Your task to perform on an android device: Open Maps and search for coffee Image 0: 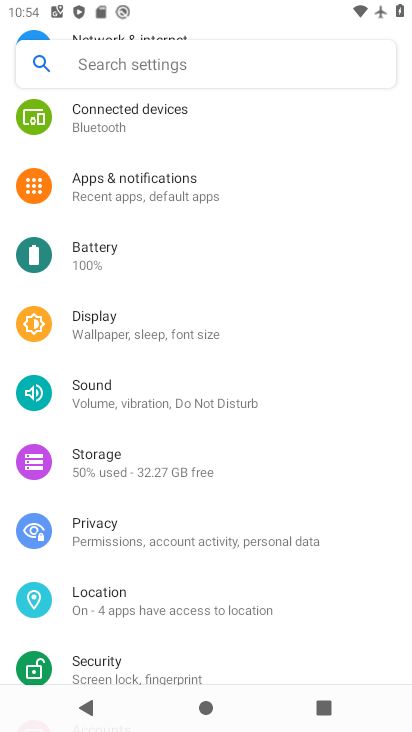
Step 0: press home button
Your task to perform on an android device: Open Maps and search for coffee Image 1: 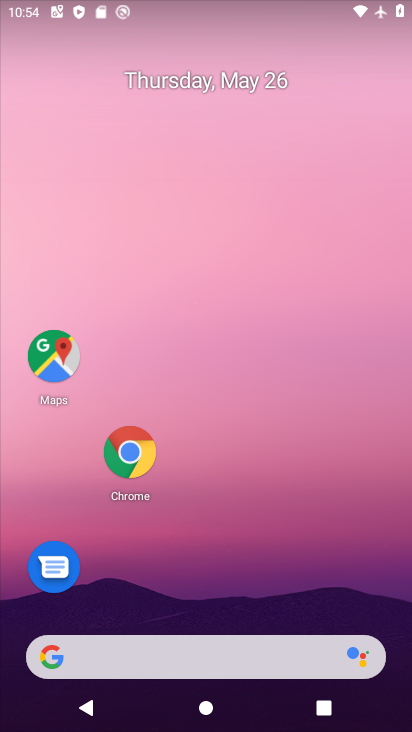
Step 1: click (55, 365)
Your task to perform on an android device: Open Maps and search for coffee Image 2: 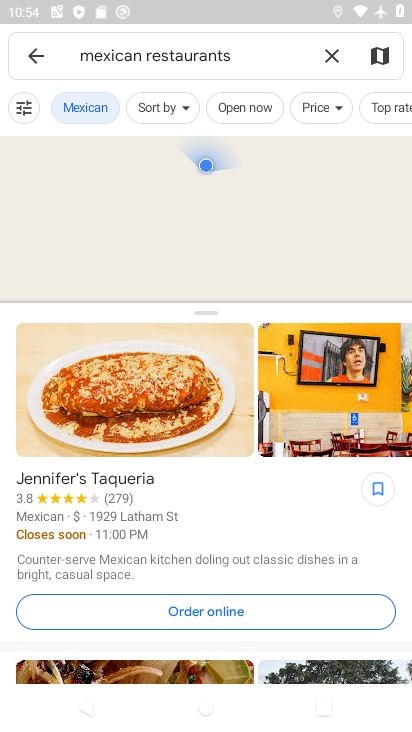
Step 2: click (332, 50)
Your task to perform on an android device: Open Maps and search for coffee Image 3: 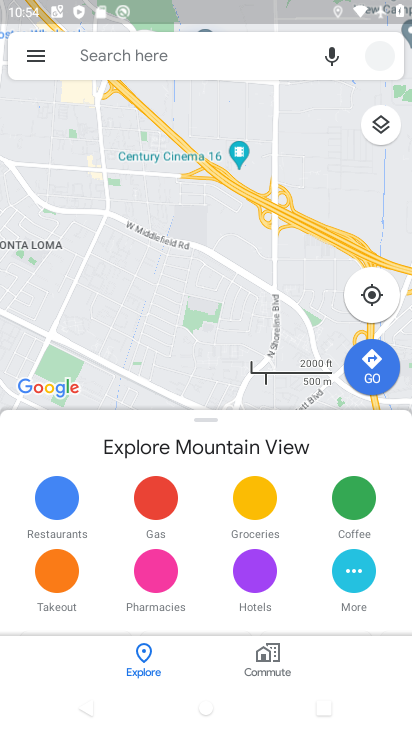
Step 3: click (195, 58)
Your task to perform on an android device: Open Maps and search for coffee Image 4: 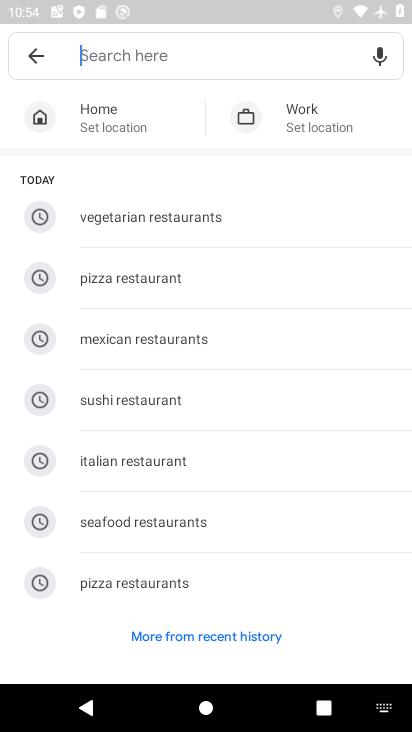
Step 4: type "coffee"
Your task to perform on an android device: Open Maps and search for coffee Image 5: 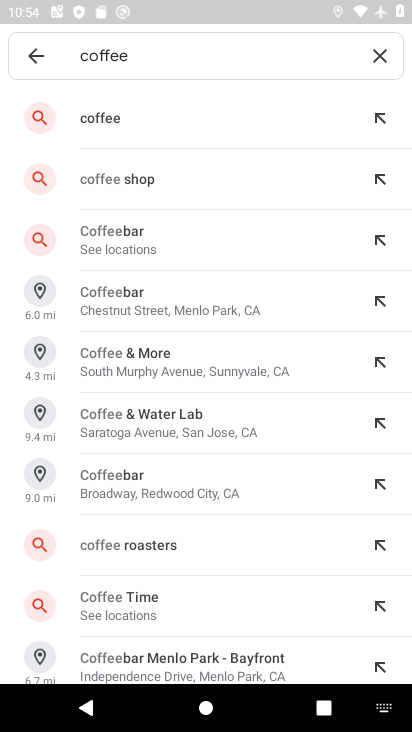
Step 5: click (137, 189)
Your task to perform on an android device: Open Maps and search for coffee Image 6: 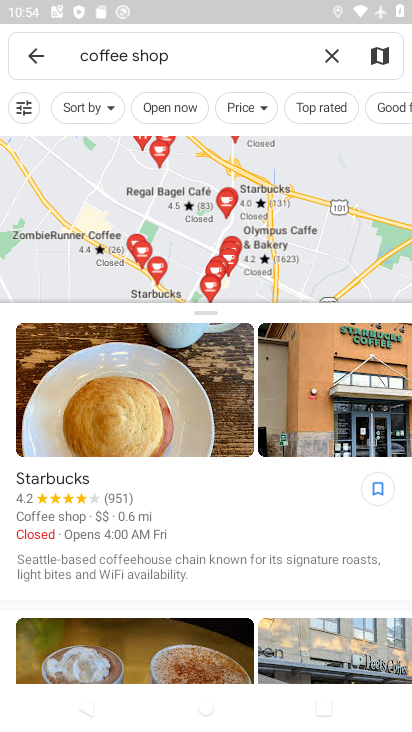
Step 6: task complete